Your task to perform on an android device: Open calendar and show me the first week of next month Image 0: 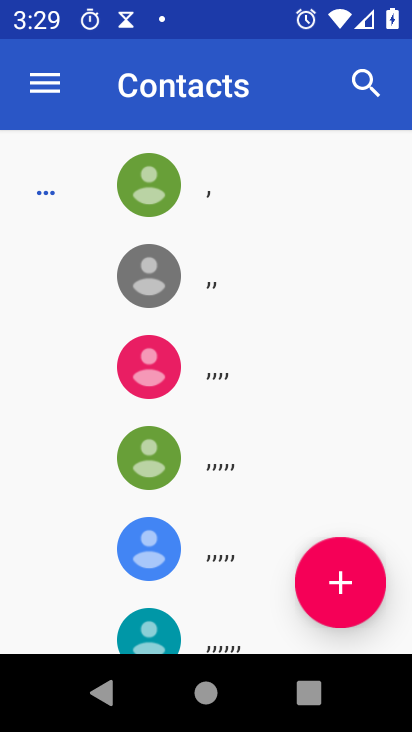
Step 0: click (241, 443)
Your task to perform on an android device: Open calendar and show me the first week of next month Image 1: 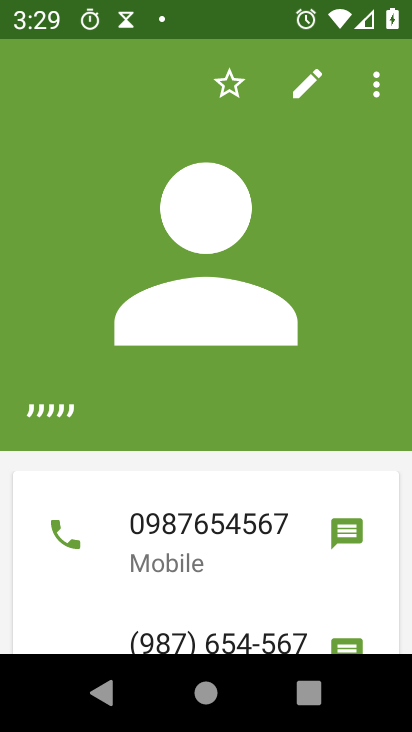
Step 1: press back button
Your task to perform on an android device: Open calendar and show me the first week of next month Image 2: 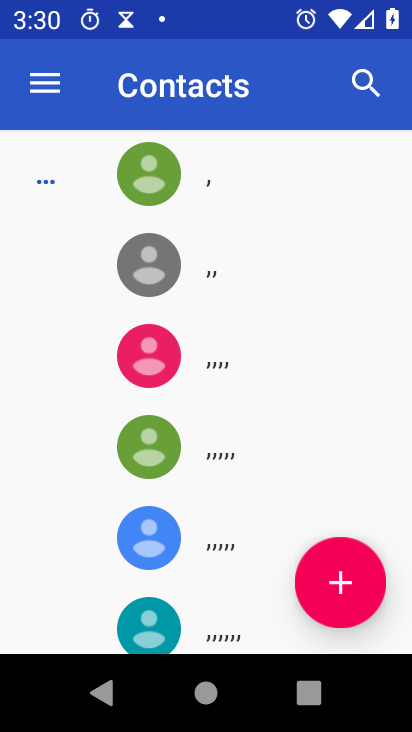
Step 2: press home button
Your task to perform on an android device: Open calendar and show me the first week of next month Image 3: 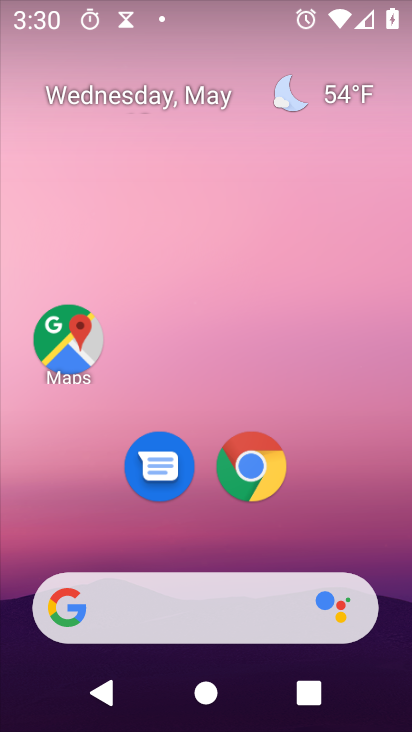
Step 3: drag from (380, 540) to (271, 84)
Your task to perform on an android device: Open calendar and show me the first week of next month Image 4: 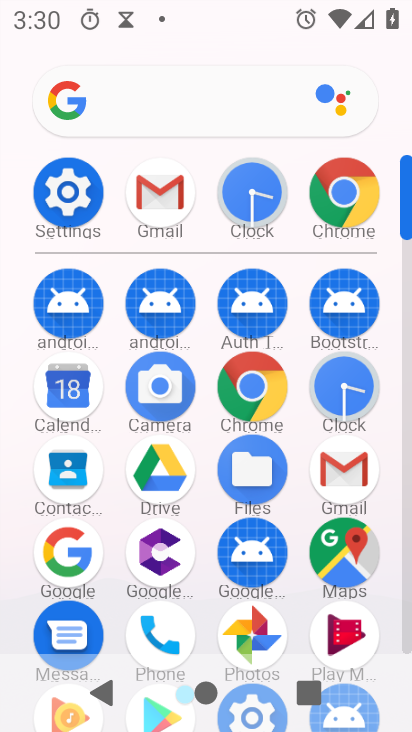
Step 4: click (59, 369)
Your task to perform on an android device: Open calendar and show me the first week of next month Image 5: 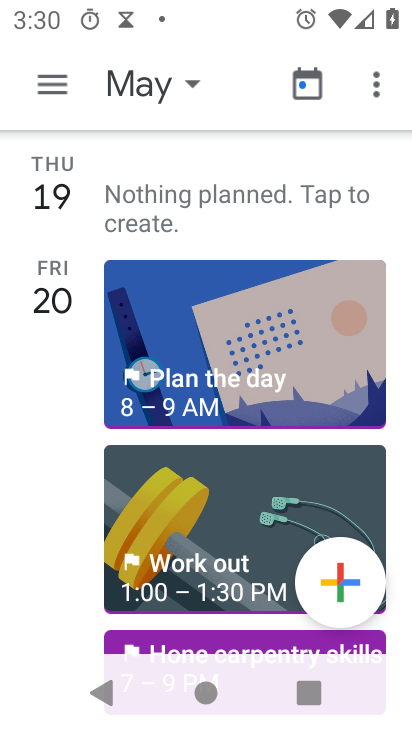
Step 5: click (63, 87)
Your task to perform on an android device: Open calendar and show me the first week of next month Image 6: 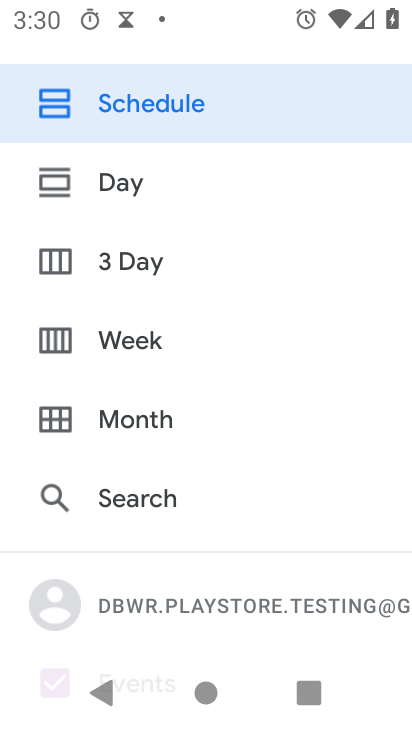
Step 6: click (169, 341)
Your task to perform on an android device: Open calendar and show me the first week of next month Image 7: 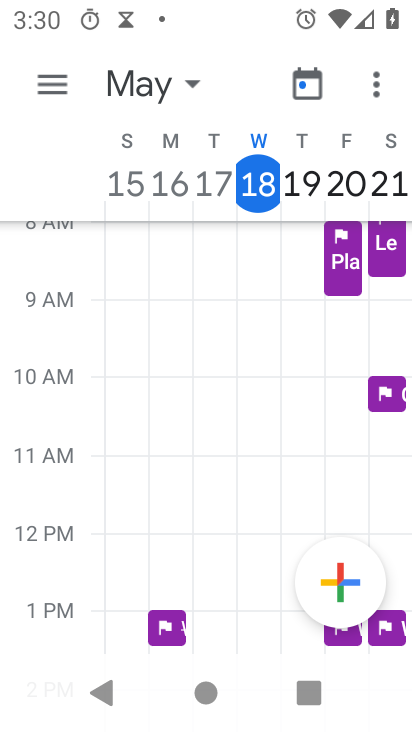
Step 7: click (167, 98)
Your task to perform on an android device: Open calendar and show me the first week of next month Image 8: 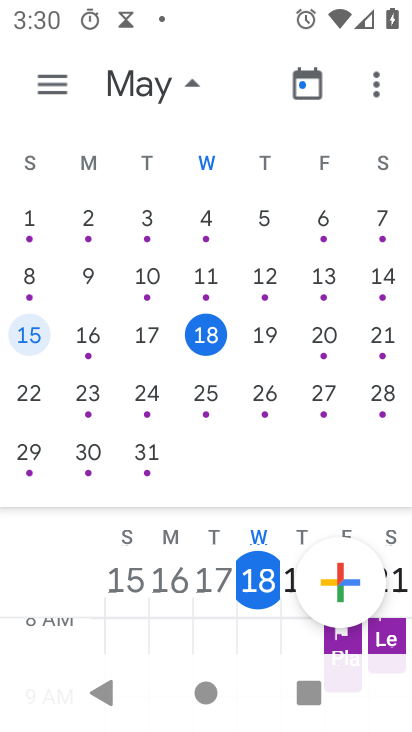
Step 8: drag from (392, 290) to (0, 266)
Your task to perform on an android device: Open calendar and show me the first week of next month Image 9: 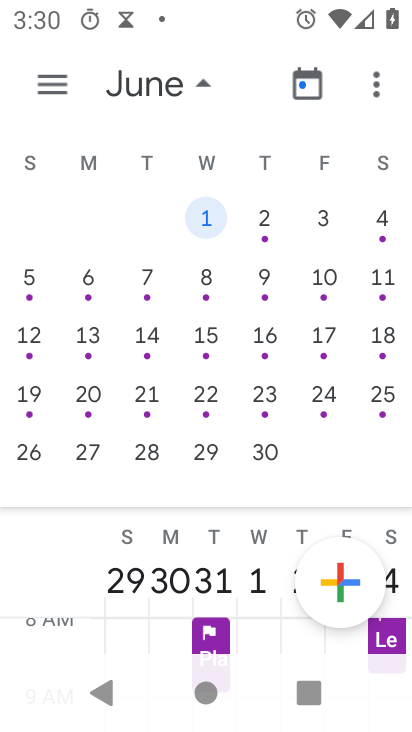
Step 9: click (215, 223)
Your task to perform on an android device: Open calendar and show me the first week of next month Image 10: 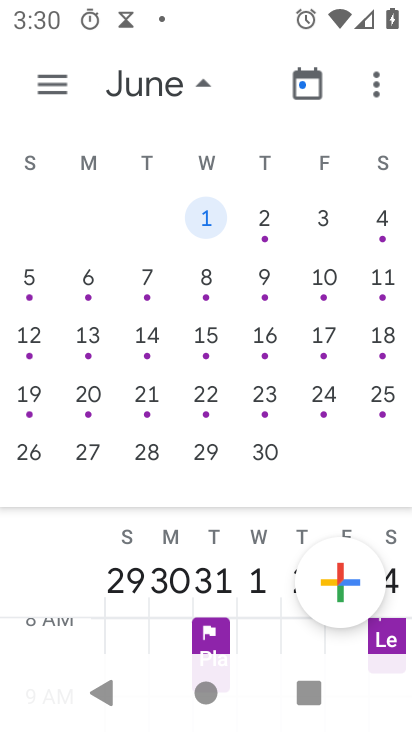
Step 10: click (186, 92)
Your task to perform on an android device: Open calendar and show me the first week of next month Image 11: 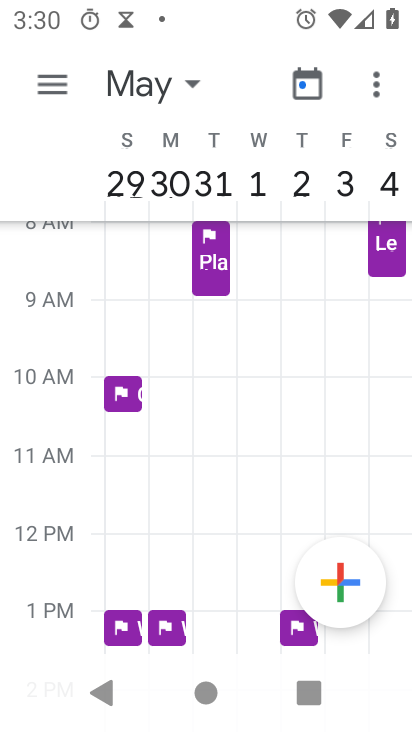
Step 11: task complete